Your task to perform on an android device: Open Youtube and go to "Your channel" Image 0: 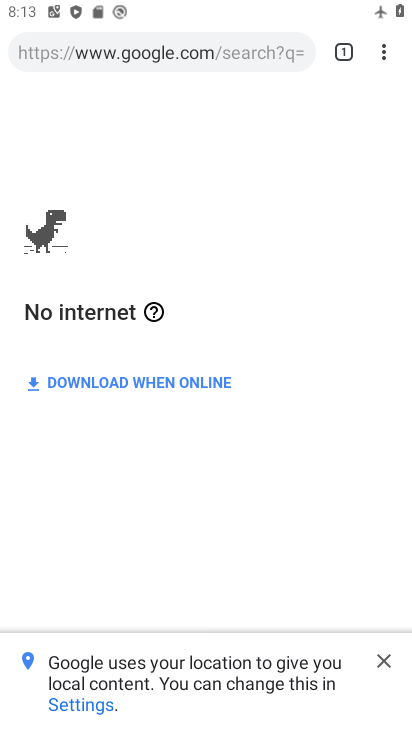
Step 0: press home button
Your task to perform on an android device: Open Youtube and go to "Your channel" Image 1: 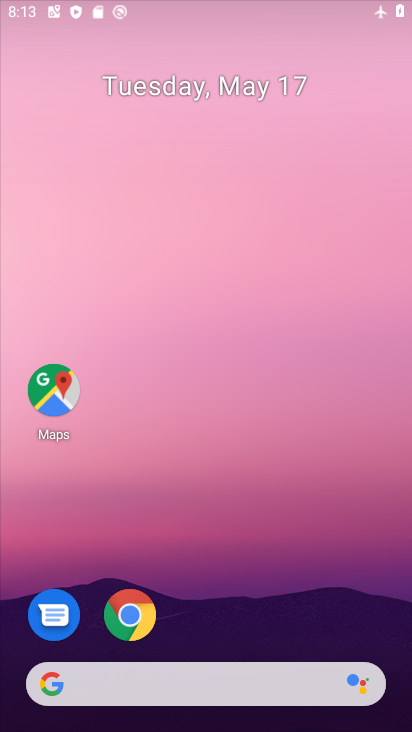
Step 1: drag from (266, 643) to (290, 197)
Your task to perform on an android device: Open Youtube and go to "Your channel" Image 2: 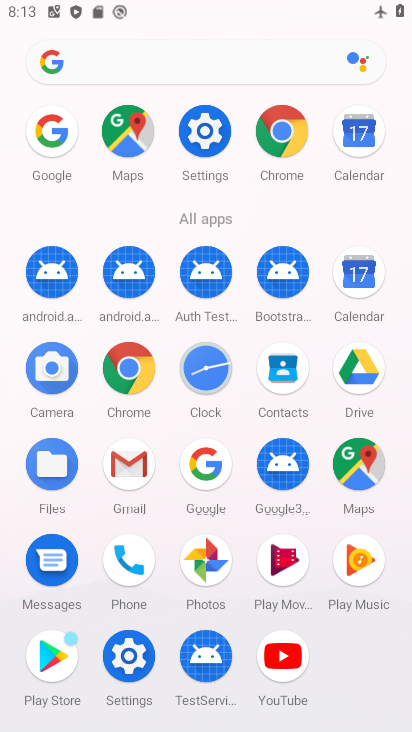
Step 2: click (280, 660)
Your task to perform on an android device: Open Youtube and go to "Your channel" Image 3: 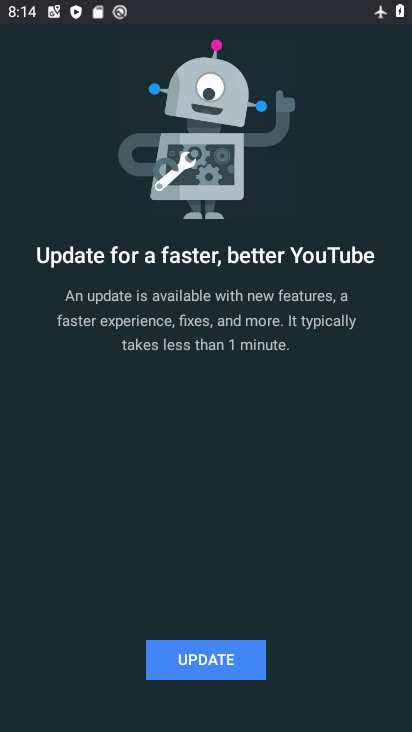
Step 3: task complete